Your task to perform on an android device: Show me popular videos on Youtube Image 0: 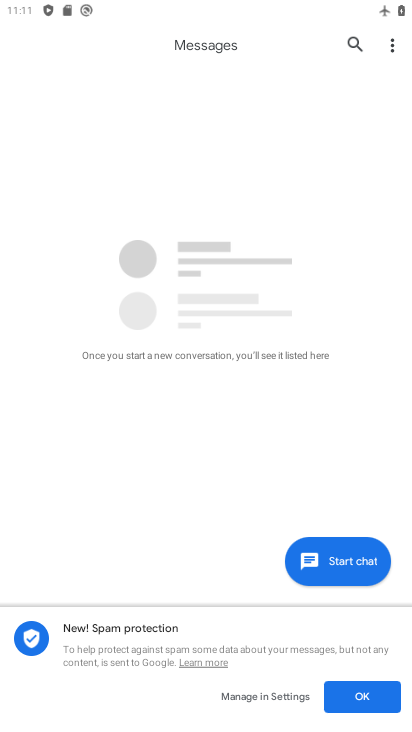
Step 0: press home button
Your task to perform on an android device: Show me popular videos on Youtube Image 1: 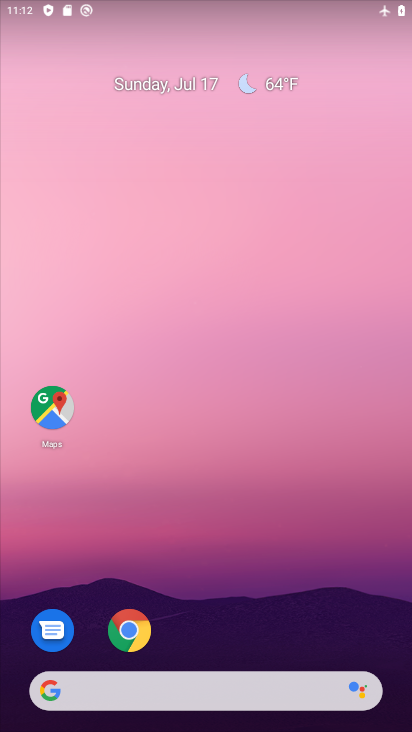
Step 1: drag from (386, 630) to (289, 53)
Your task to perform on an android device: Show me popular videos on Youtube Image 2: 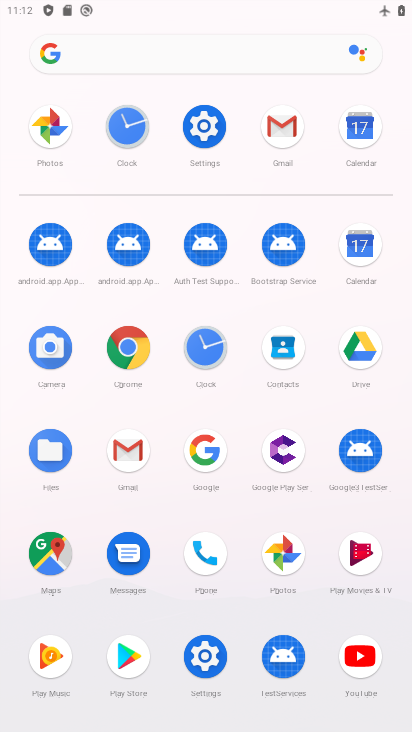
Step 2: click (360, 656)
Your task to perform on an android device: Show me popular videos on Youtube Image 3: 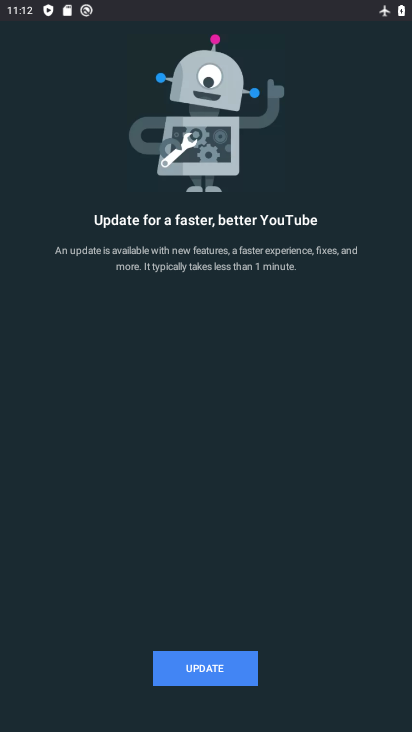
Step 3: click (196, 670)
Your task to perform on an android device: Show me popular videos on Youtube Image 4: 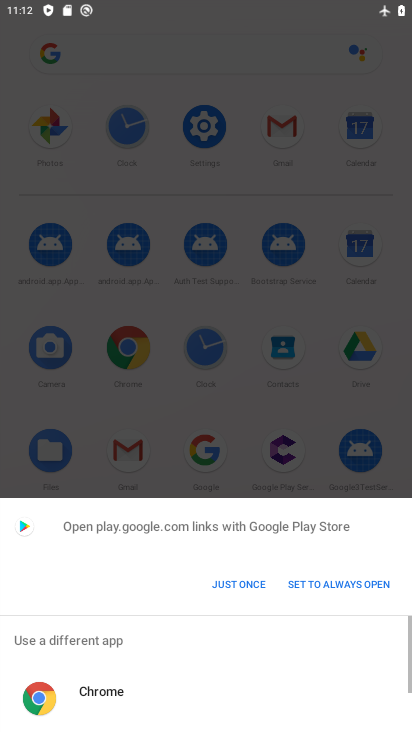
Step 4: click (235, 581)
Your task to perform on an android device: Show me popular videos on Youtube Image 5: 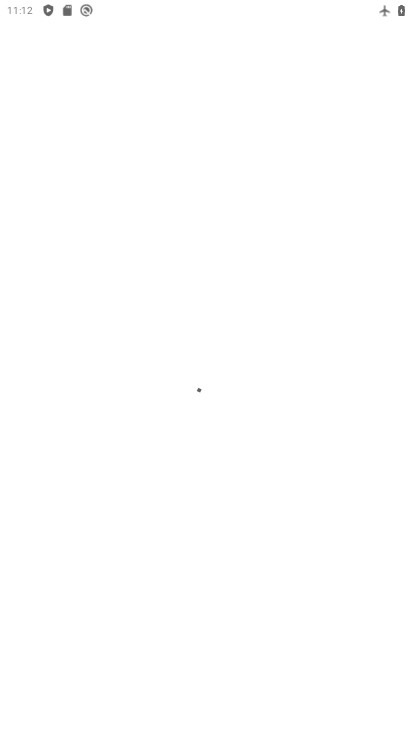
Step 5: task complete